Your task to perform on an android device: Open Google Chrome and open the bookmarks view Image 0: 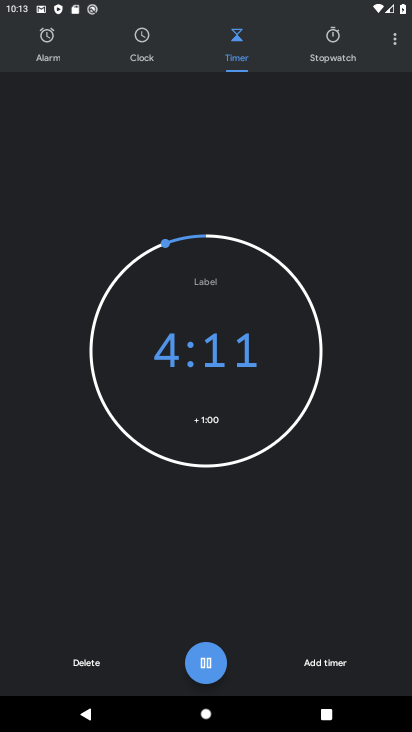
Step 0: press home button
Your task to perform on an android device: Open Google Chrome and open the bookmarks view Image 1: 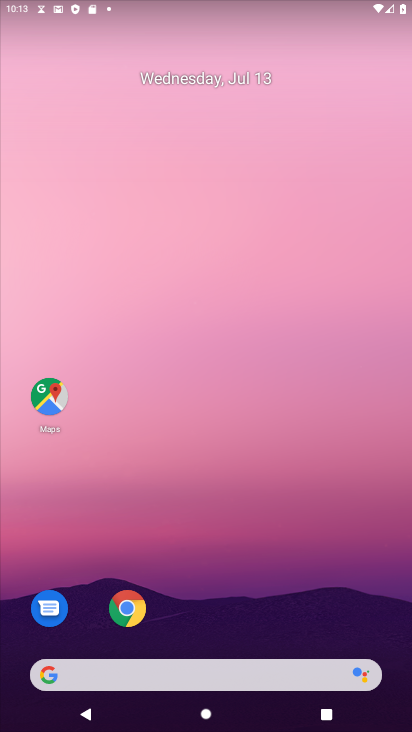
Step 1: drag from (217, 626) to (165, 1)
Your task to perform on an android device: Open Google Chrome and open the bookmarks view Image 2: 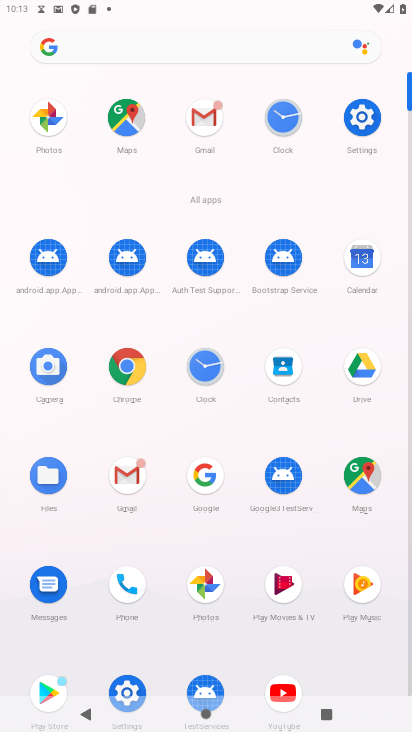
Step 2: click (129, 363)
Your task to perform on an android device: Open Google Chrome and open the bookmarks view Image 3: 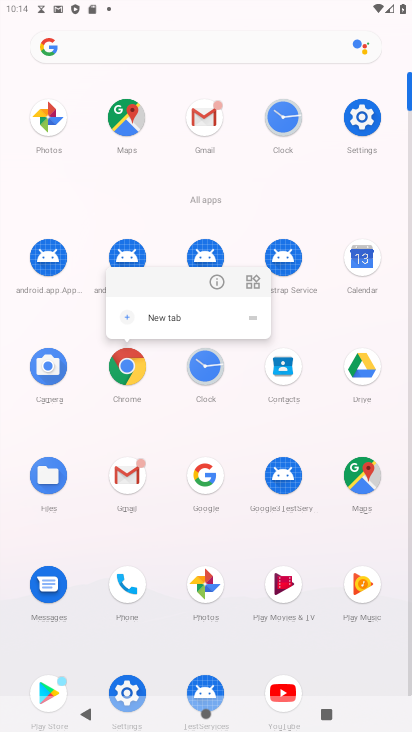
Step 3: click (135, 376)
Your task to perform on an android device: Open Google Chrome and open the bookmarks view Image 4: 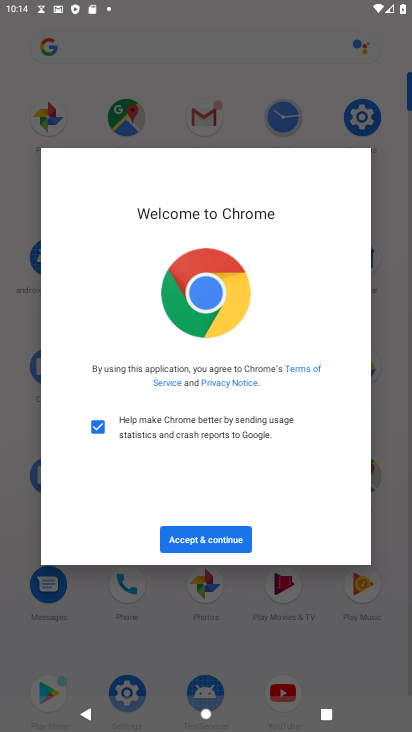
Step 4: click (199, 541)
Your task to perform on an android device: Open Google Chrome and open the bookmarks view Image 5: 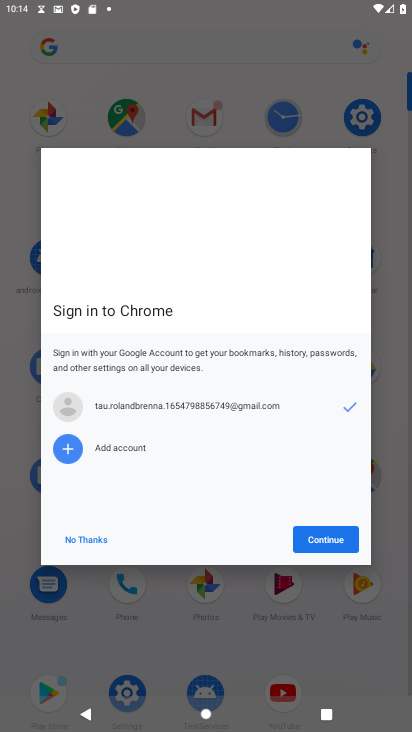
Step 5: click (320, 539)
Your task to perform on an android device: Open Google Chrome and open the bookmarks view Image 6: 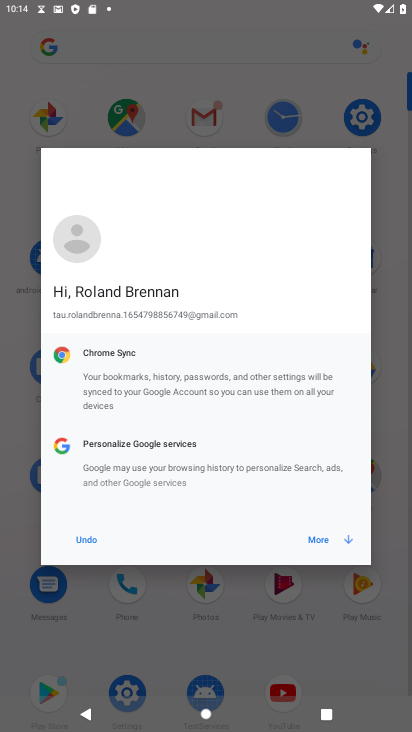
Step 6: click (320, 539)
Your task to perform on an android device: Open Google Chrome and open the bookmarks view Image 7: 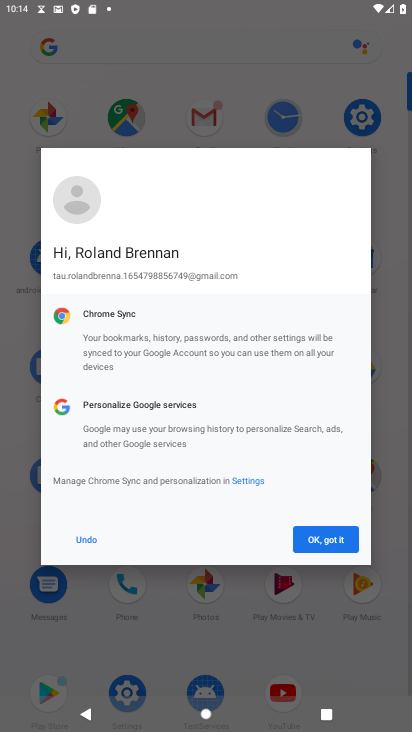
Step 7: click (318, 539)
Your task to perform on an android device: Open Google Chrome and open the bookmarks view Image 8: 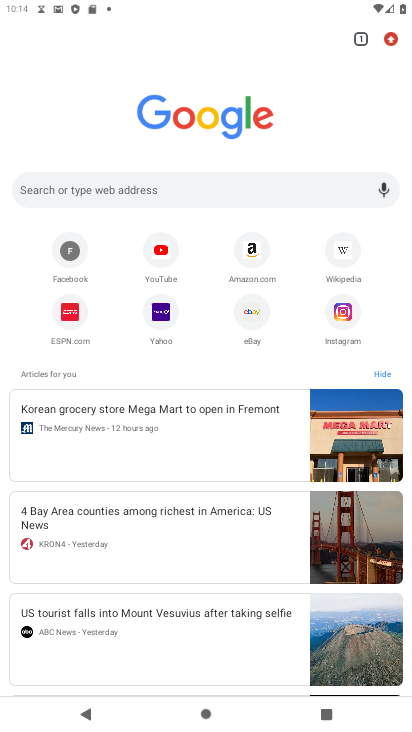
Step 8: click (393, 36)
Your task to perform on an android device: Open Google Chrome and open the bookmarks view Image 9: 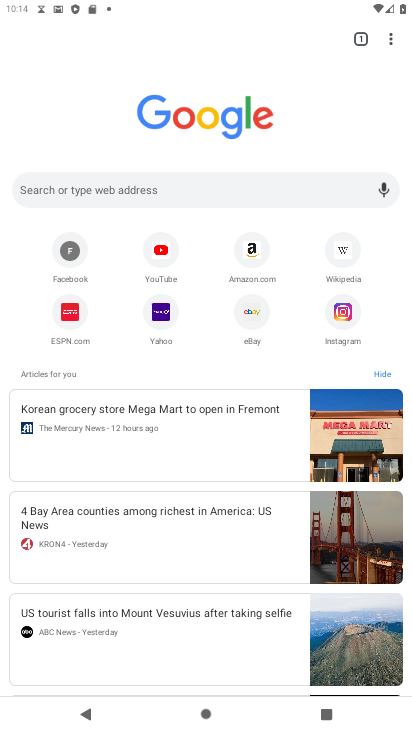
Step 9: click (388, 36)
Your task to perform on an android device: Open Google Chrome and open the bookmarks view Image 10: 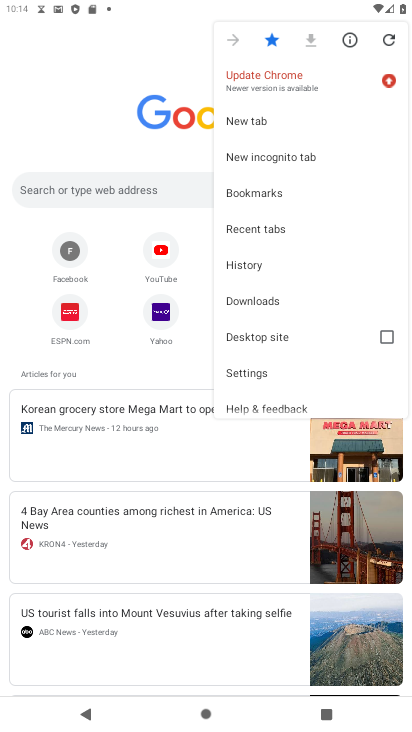
Step 10: click (258, 193)
Your task to perform on an android device: Open Google Chrome and open the bookmarks view Image 11: 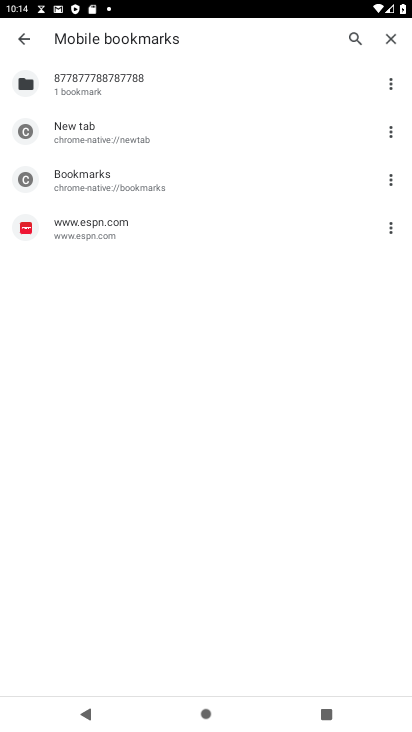
Step 11: task complete